Your task to perform on an android device: Open Google Chrome and click the shortcut for Amazon.com Image 0: 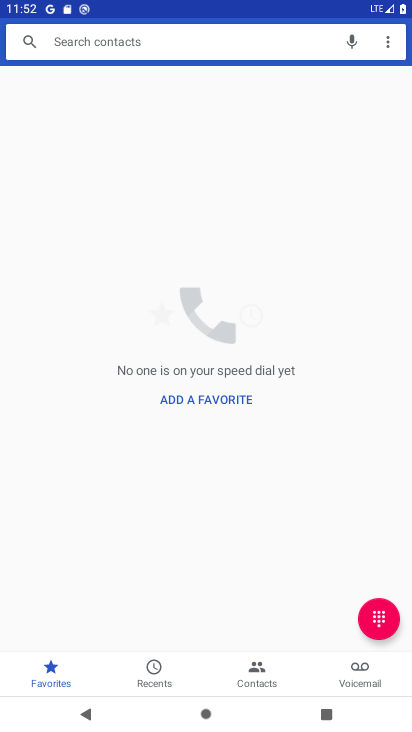
Step 0: press home button
Your task to perform on an android device: Open Google Chrome and click the shortcut for Amazon.com Image 1: 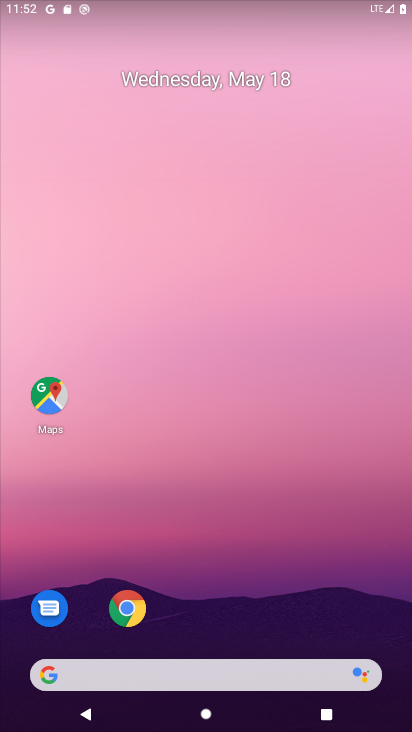
Step 1: click (112, 606)
Your task to perform on an android device: Open Google Chrome and click the shortcut for Amazon.com Image 2: 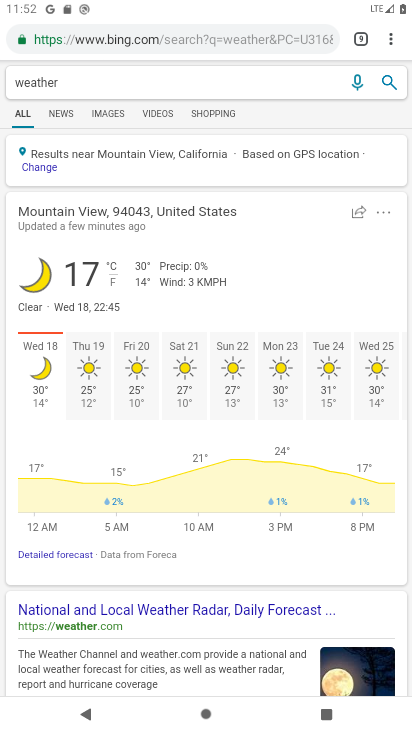
Step 2: click (363, 40)
Your task to perform on an android device: Open Google Chrome and click the shortcut for Amazon.com Image 3: 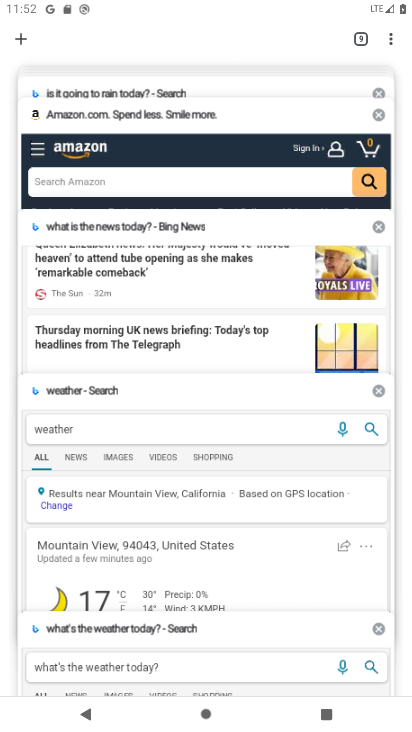
Step 3: click (27, 38)
Your task to perform on an android device: Open Google Chrome and click the shortcut for Amazon.com Image 4: 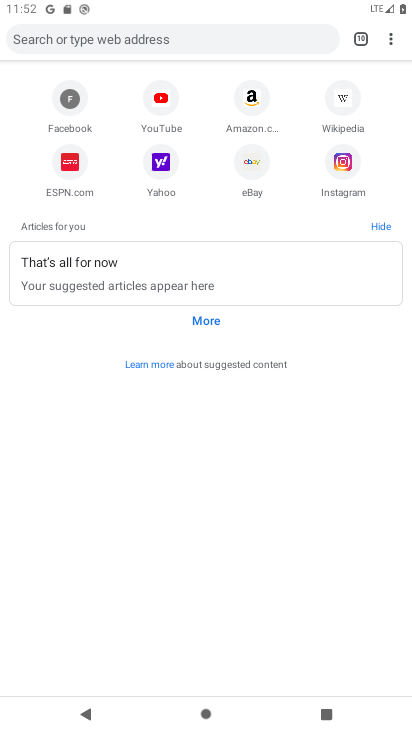
Step 4: click (262, 118)
Your task to perform on an android device: Open Google Chrome and click the shortcut for Amazon.com Image 5: 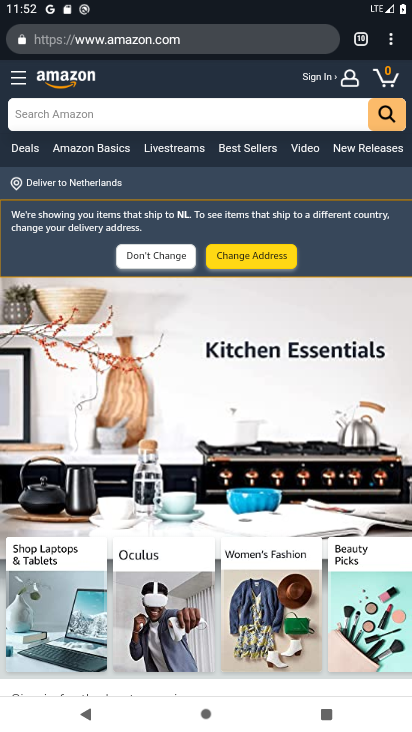
Step 5: task complete